Your task to perform on an android device: Open Chrome and go to the settings page Image 0: 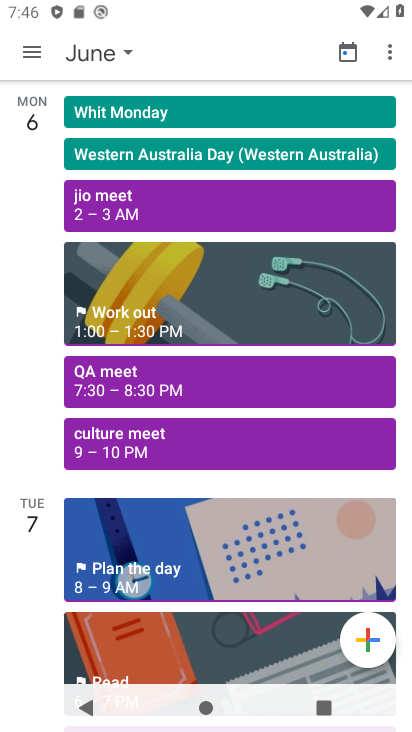
Step 0: press home button
Your task to perform on an android device: Open Chrome and go to the settings page Image 1: 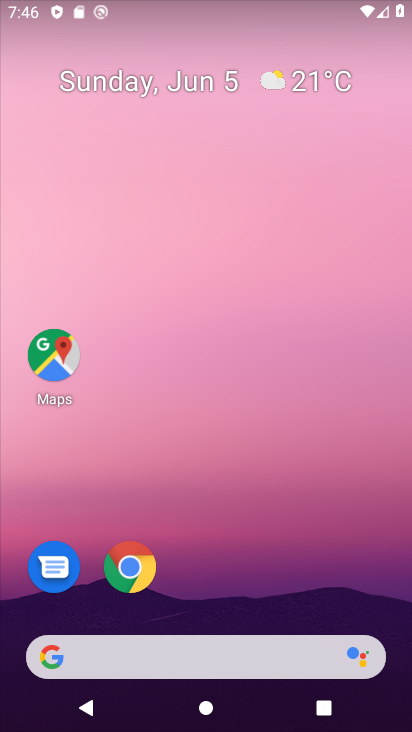
Step 1: drag from (128, 639) to (118, 287)
Your task to perform on an android device: Open Chrome and go to the settings page Image 2: 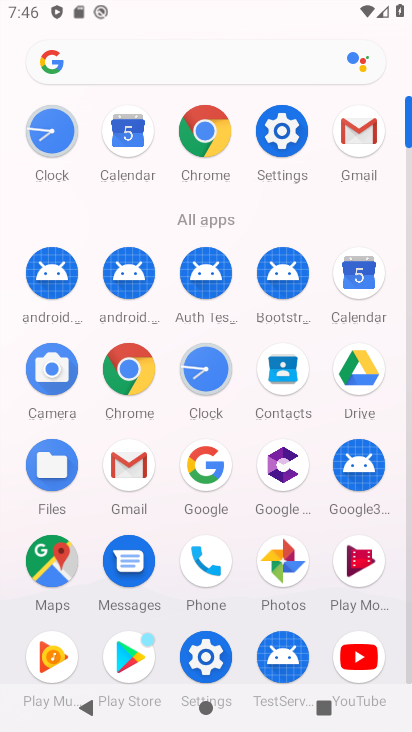
Step 2: click (203, 140)
Your task to perform on an android device: Open Chrome and go to the settings page Image 3: 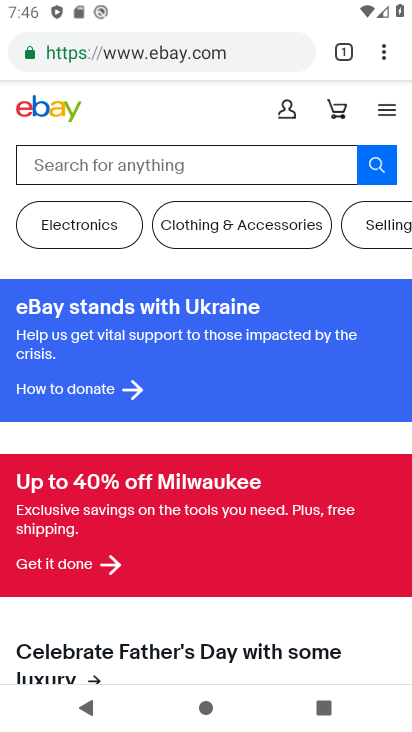
Step 3: click (384, 57)
Your task to perform on an android device: Open Chrome and go to the settings page Image 4: 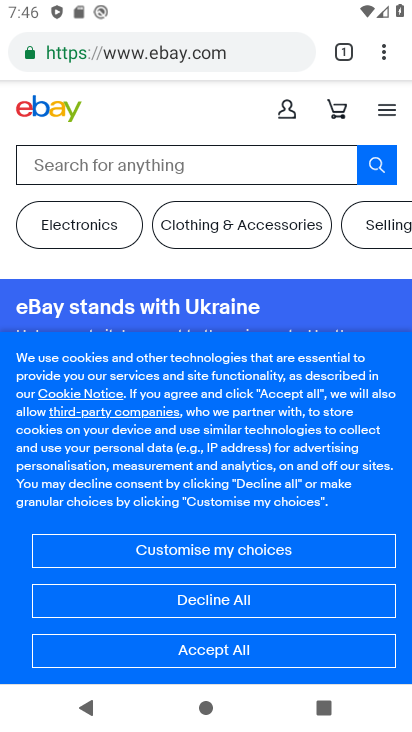
Step 4: click (390, 52)
Your task to perform on an android device: Open Chrome and go to the settings page Image 5: 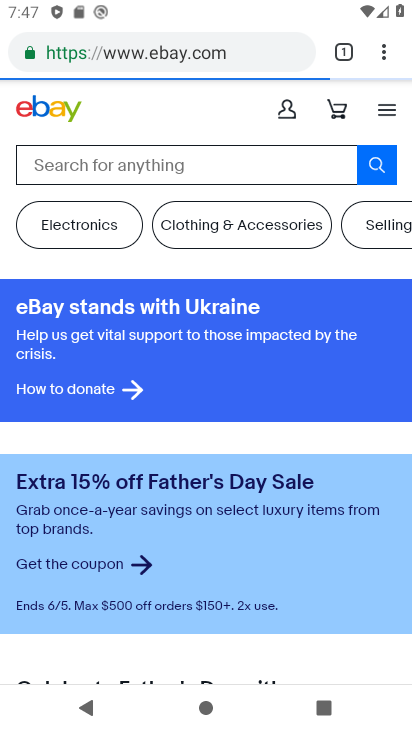
Step 5: click (384, 48)
Your task to perform on an android device: Open Chrome and go to the settings page Image 6: 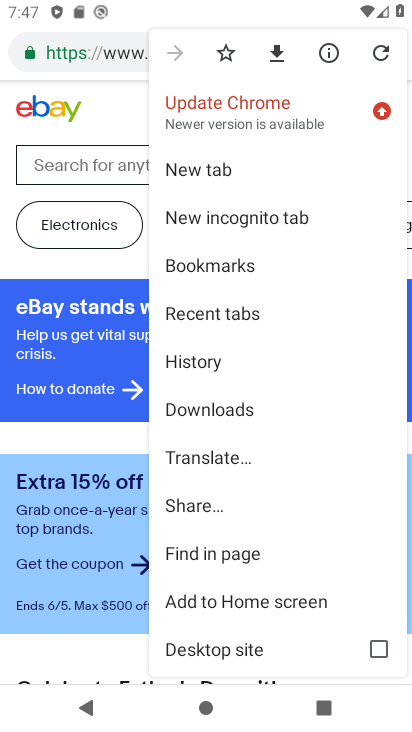
Step 6: drag from (224, 631) to (222, 324)
Your task to perform on an android device: Open Chrome and go to the settings page Image 7: 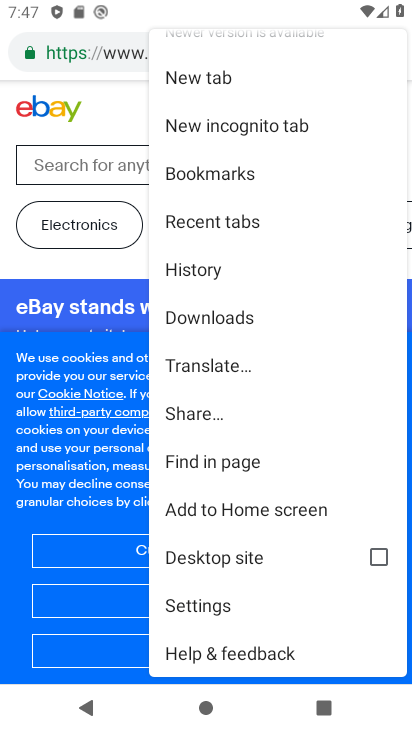
Step 7: click (189, 615)
Your task to perform on an android device: Open Chrome and go to the settings page Image 8: 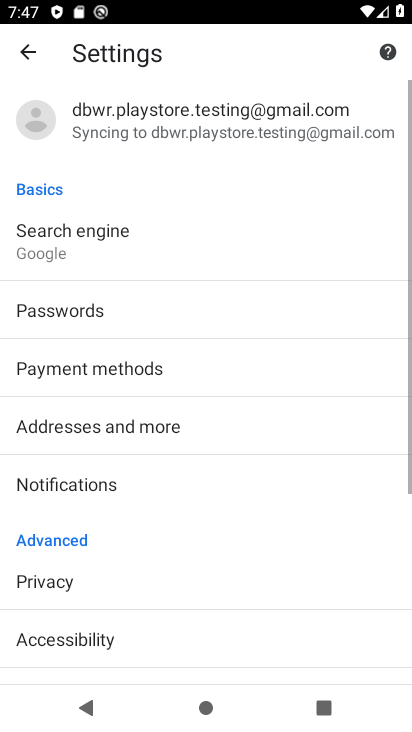
Step 8: task complete